Your task to perform on an android device: Open maps Image 0: 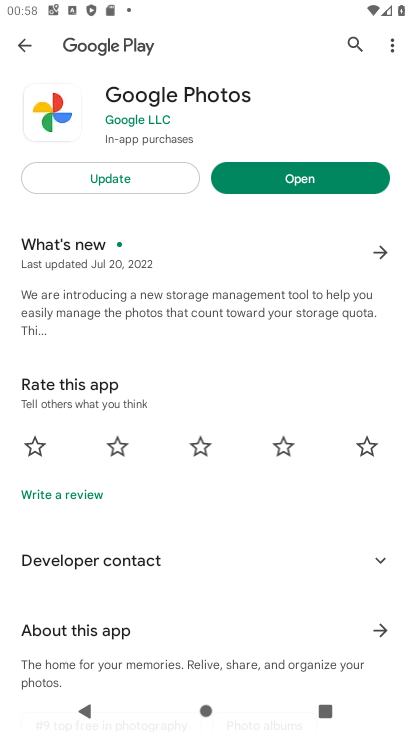
Step 0: press home button
Your task to perform on an android device: Open maps Image 1: 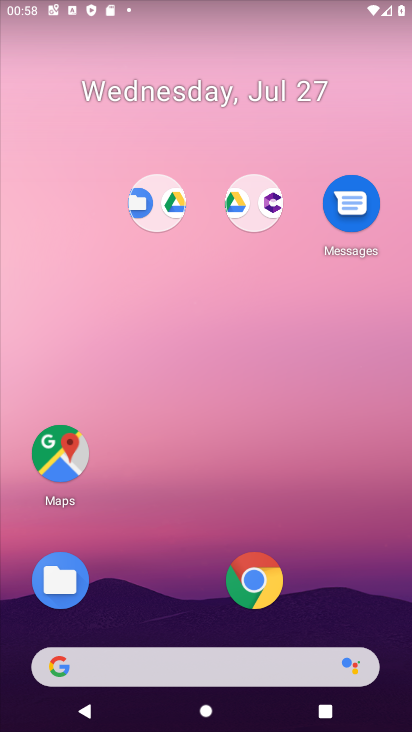
Step 1: click (59, 454)
Your task to perform on an android device: Open maps Image 2: 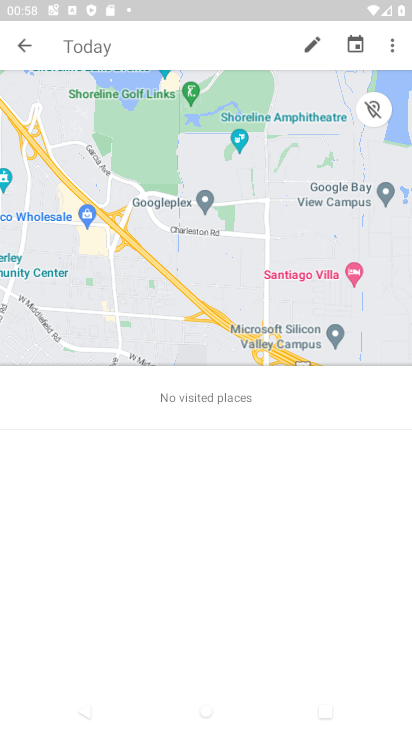
Step 2: task complete